Your task to perform on an android device: open a bookmark in the chrome app Image 0: 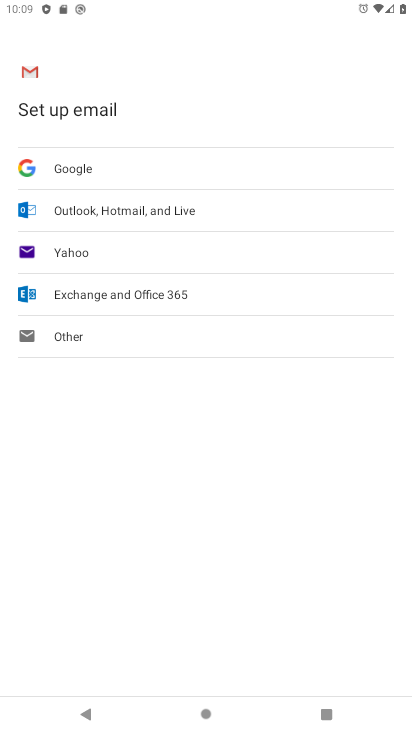
Step 0: press home button
Your task to perform on an android device: open a bookmark in the chrome app Image 1: 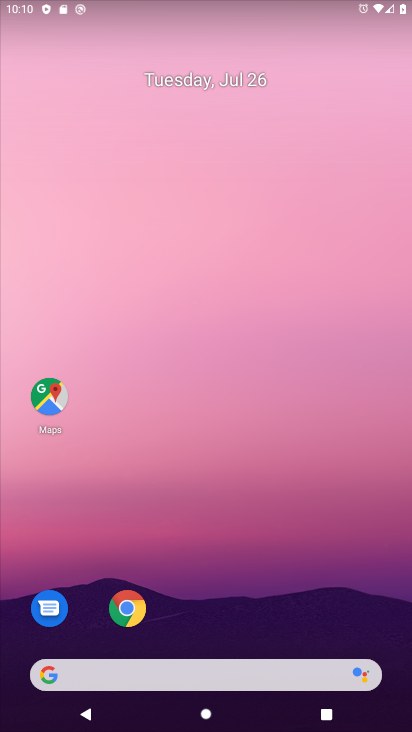
Step 1: click (132, 608)
Your task to perform on an android device: open a bookmark in the chrome app Image 2: 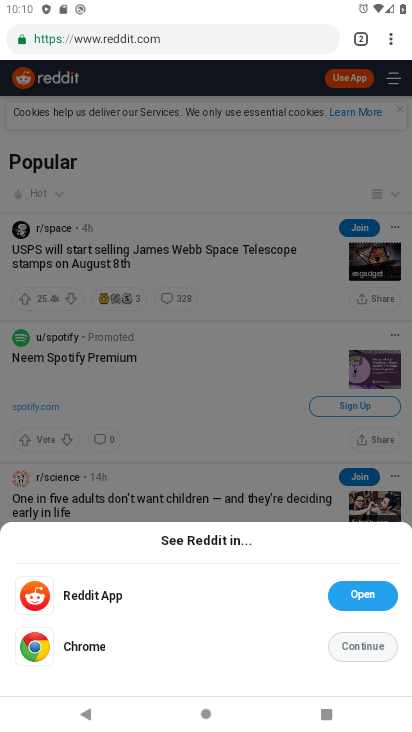
Step 2: click (389, 43)
Your task to perform on an android device: open a bookmark in the chrome app Image 3: 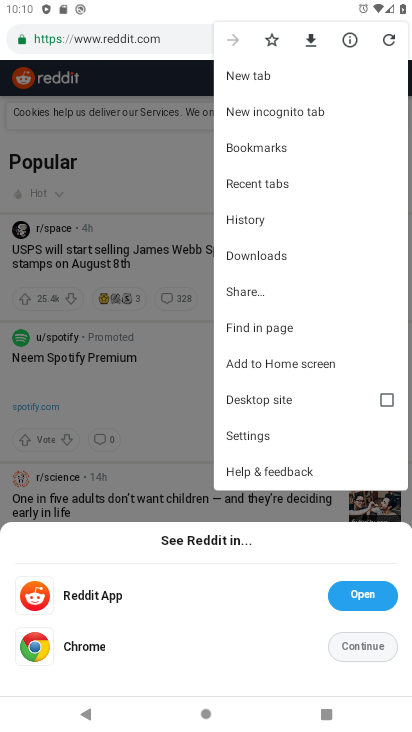
Step 3: click (270, 149)
Your task to perform on an android device: open a bookmark in the chrome app Image 4: 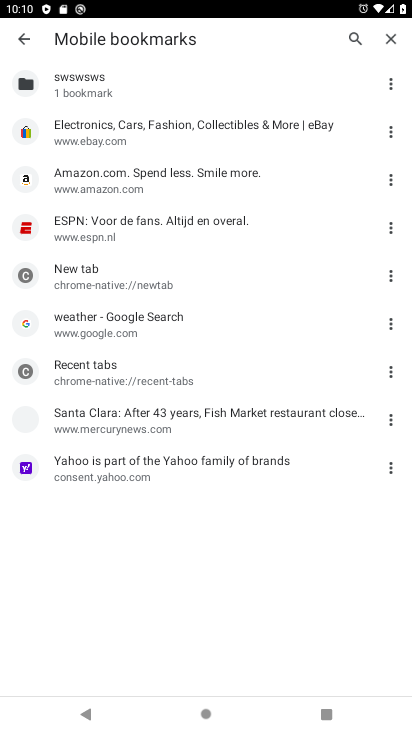
Step 4: click (104, 132)
Your task to perform on an android device: open a bookmark in the chrome app Image 5: 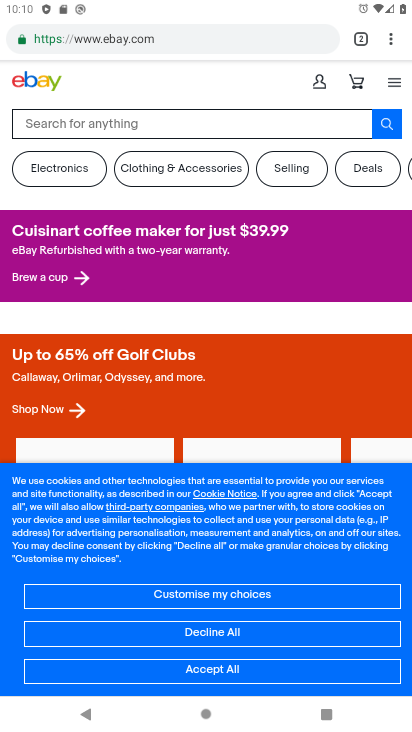
Step 5: task complete